Your task to perform on an android device: Turn on the flashlight Image 0: 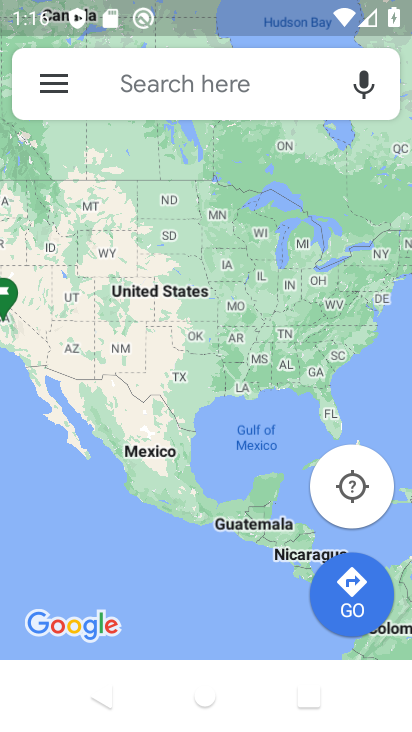
Step 0: press home button
Your task to perform on an android device: Turn on the flashlight Image 1: 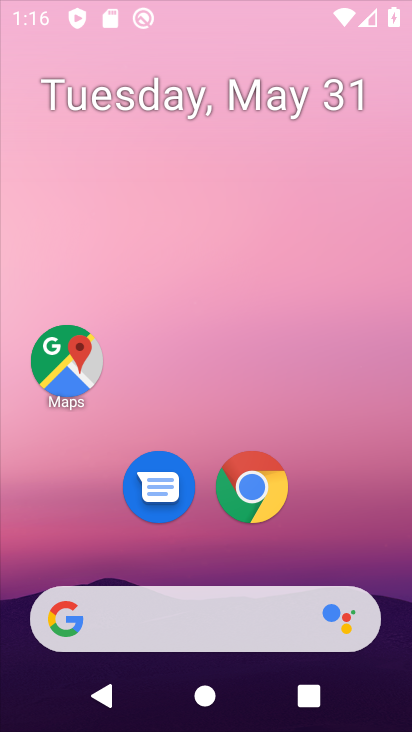
Step 1: task complete